Your task to perform on an android device: Go to eBay Image 0: 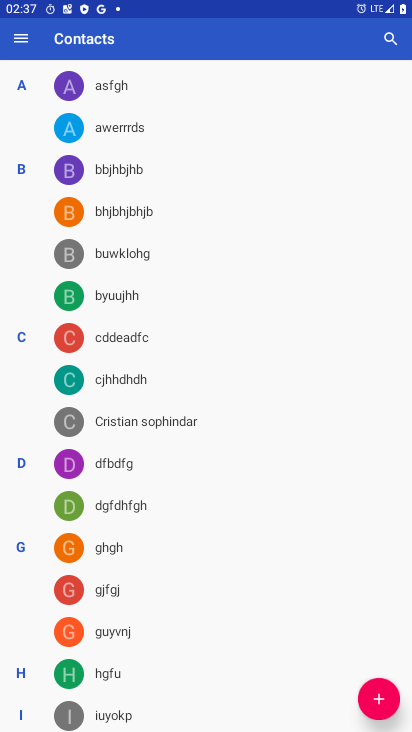
Step 0: press home button
Your task to perform on an android device: Go to eBay Image 1: 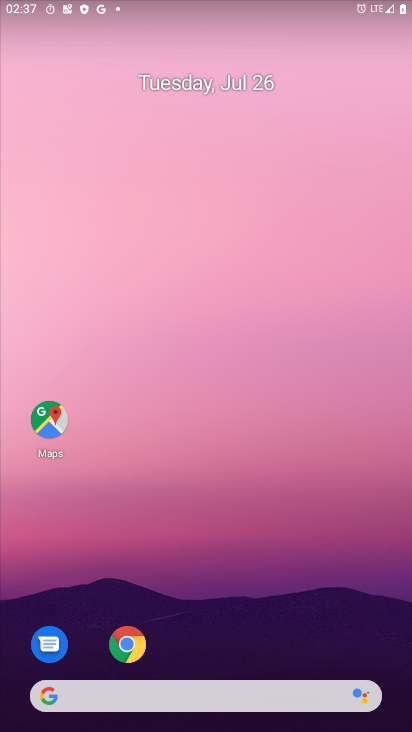
Step 1: click (124, 645)
Your task to perform on an android device: Go to eBay Image 2: 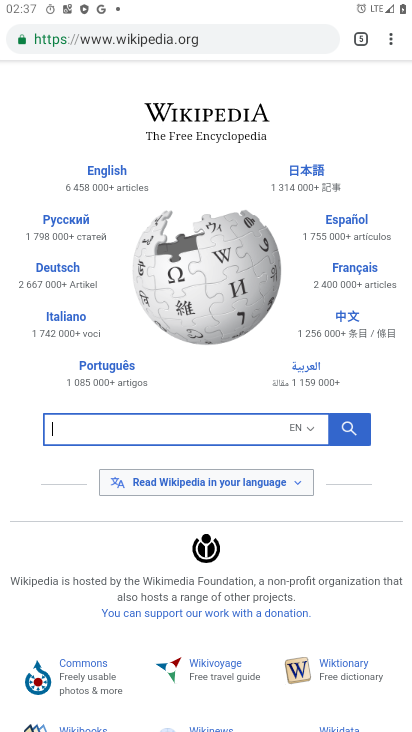
Step 2: click (187, 43)
Your task to perform on an android device: Go to eBay Image 3: 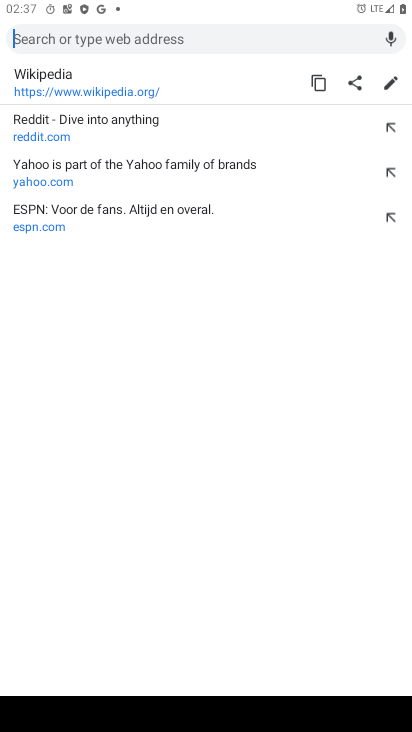
Step 3: type "ebay"
Your task to perform on an android device: Go to eBay Image 4: 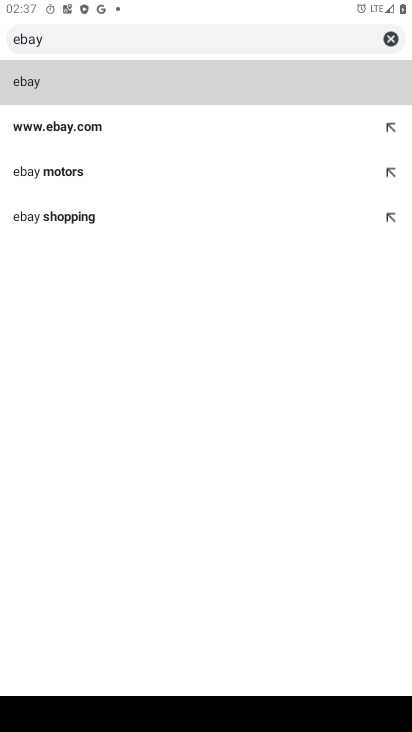
Step 4: click (38, 82)
Your task to perform on an android device: Go to eBay Image 5: 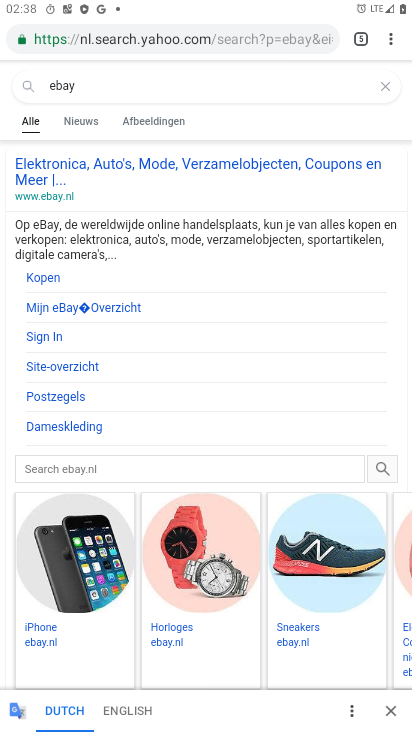
Step 5: click (47, 168)
Your task to perform on an android device: Go to eBay Image 6: 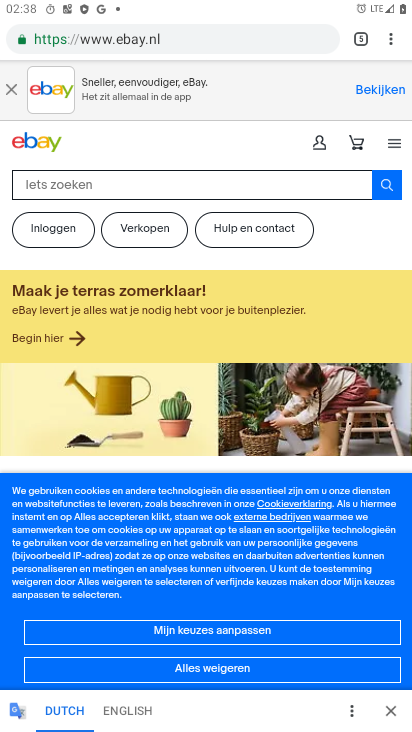
Step 6: task complete